Your task to perform on an android device: change keyboard looks Image 0: 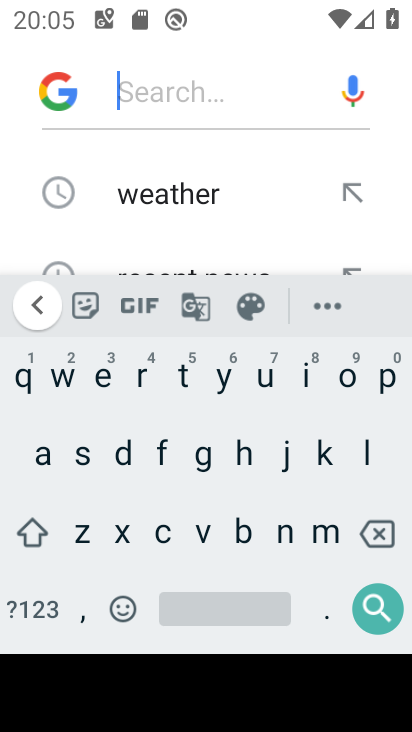
Step 0: press back button
Your task to perform on an android device: change keyboard looks Image 1: 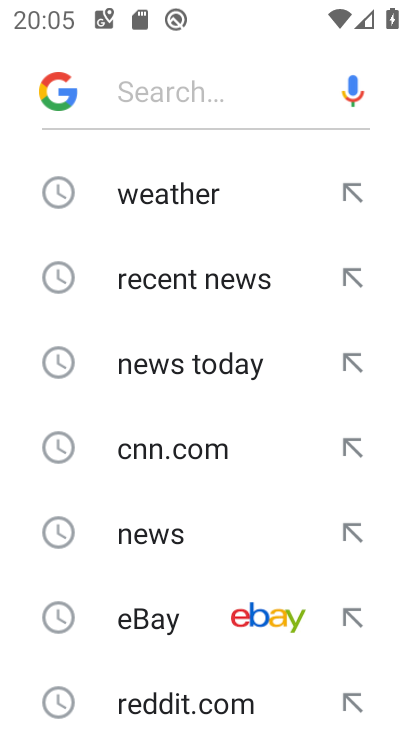
Step 1: press back button
Your task to perform on an android device: change keyboard looks Image 2: 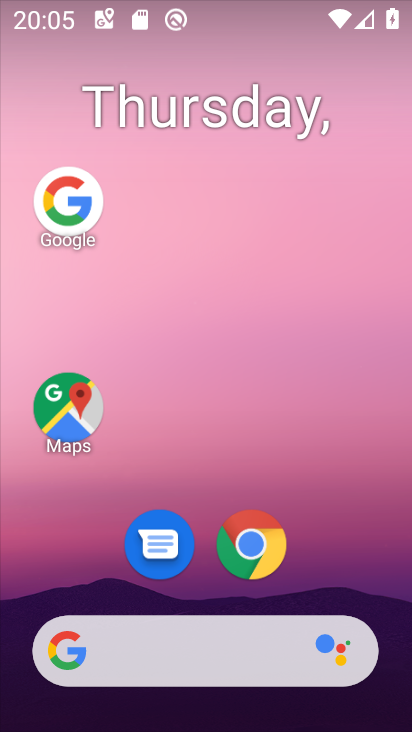
Step 2: drag from (273, 692) to (215, 138)
Your task to perform on an android device: change keyboard looks Image 3: 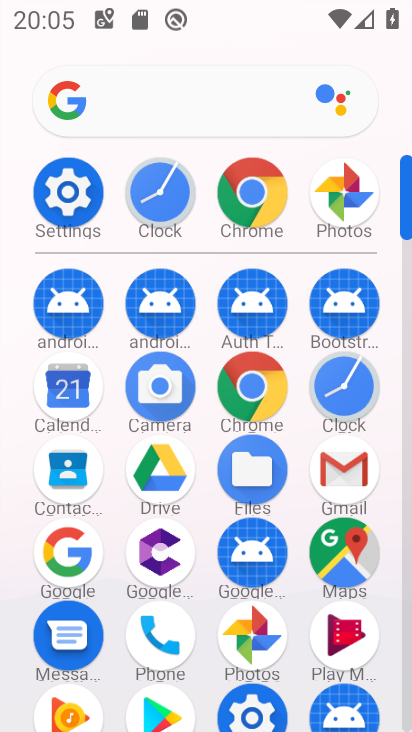
Step 3: drag from (35, 209) to (67, 186)
Your task to perform on an android device: change keyboard looks Image 4: 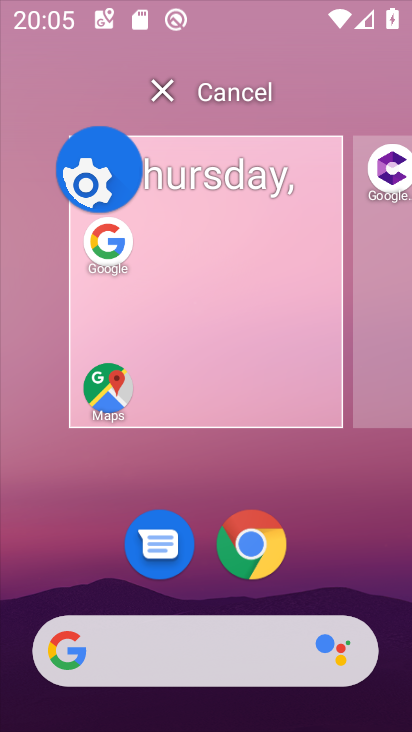
Step 4: click (67, 186)
Your task to perform on an android device: change keyboard looks Image 5: 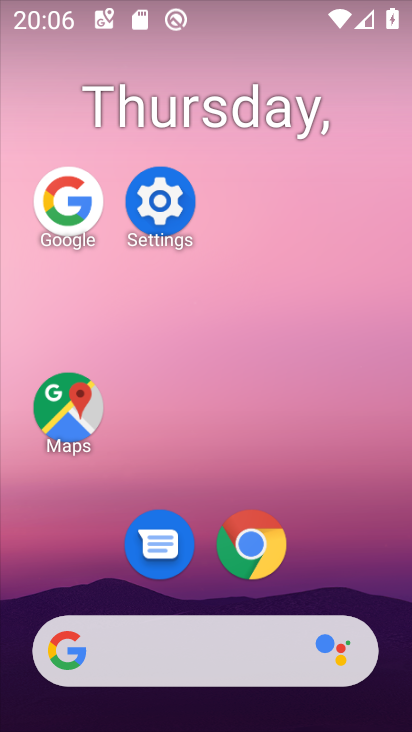
Step 5: drag from (259, 710) to (320, 210)
Your task to perform on an android device: change keyboard looks Image 6: 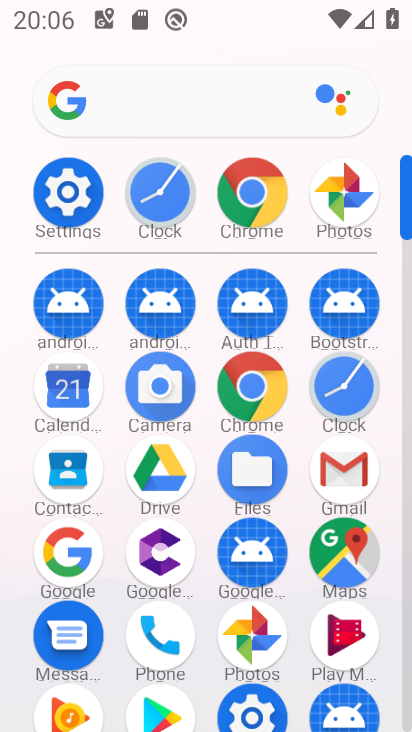
Step 6: click (77, 211)
Your task to perform on an android device: change keyboard looks Image 7: 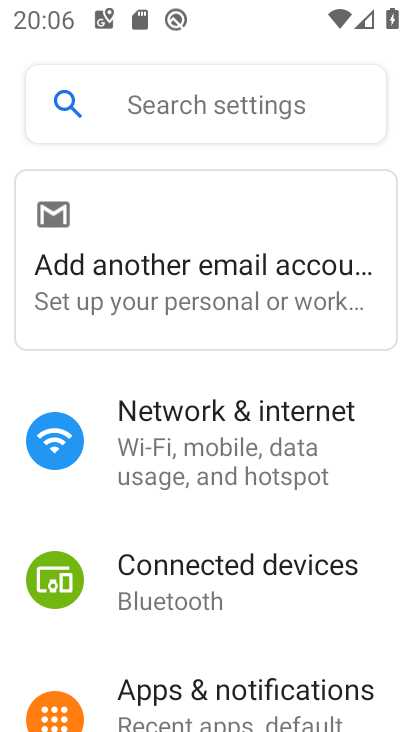
Step 7: click (200, 99)
Your task to perform on an android device: change keyboard looks Image 8: 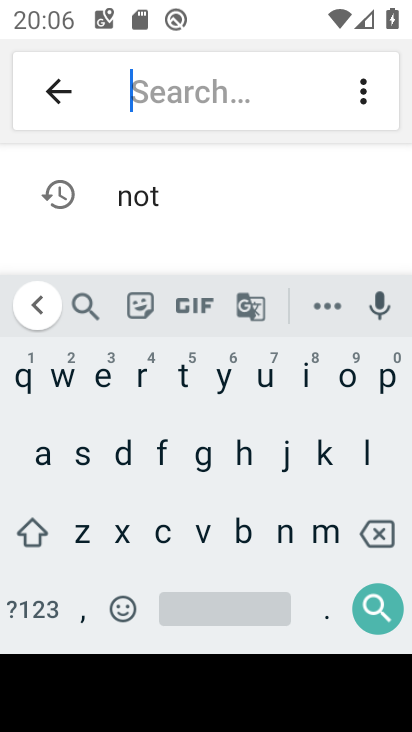
Step 8: click (327, 452)
Your task to perform on an android device: change keyboard looks Image 9: 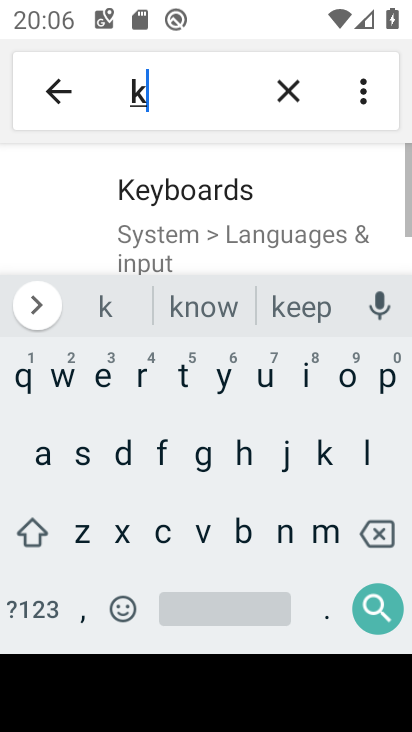
Step 9: click (104, 390)
Your task to perform on an android device: change keyboard looks Image 10: 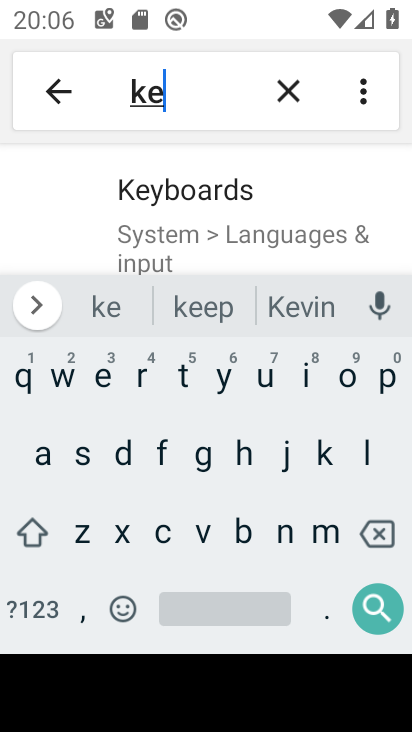
Step 10: click (205, 219)
Your task to perform on an android device: change keyboard looks Image 11: 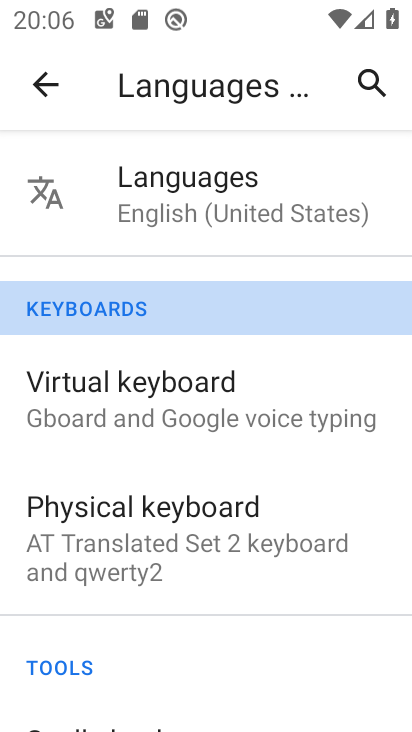
Step 11: click (156, 386)
Your task to perform on an android device: change keyboard looks Image 12: 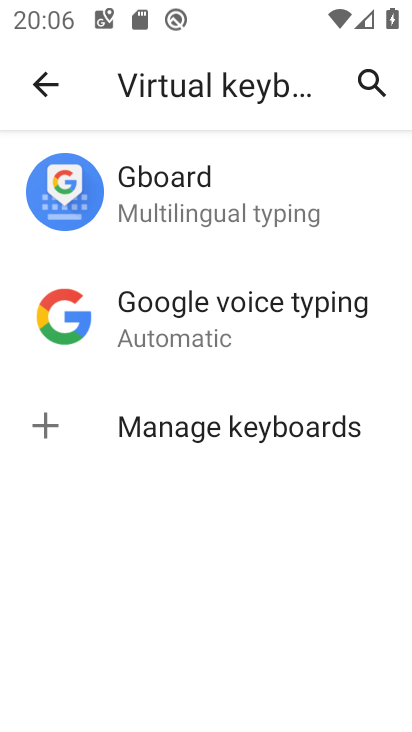
Step 12: click (190, 185)
Your task to perform on an android device: change keyboard looks Image 13: 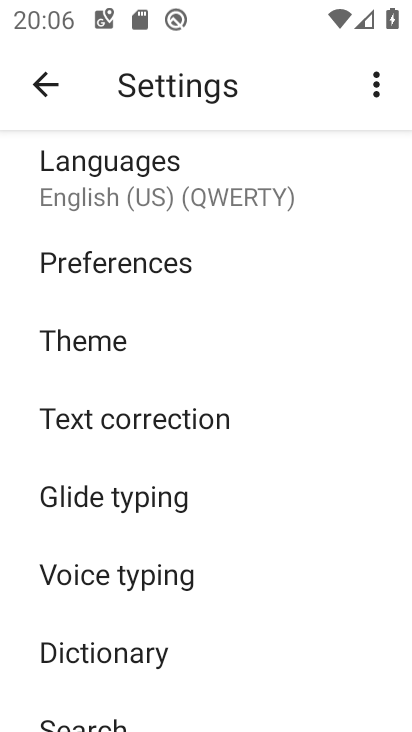
Step 13: click (99, 335)
Your task to perform on an android device: change keyboard looks Image 14: 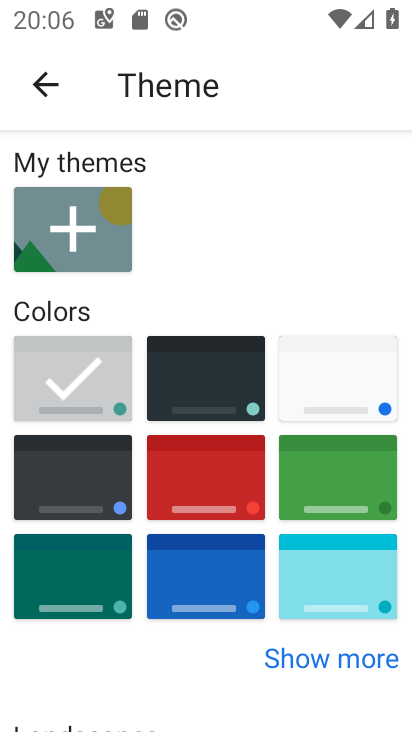
Step 14: click (111, 563)
Your task to perform on an android device: change keyboard looks Image 15: 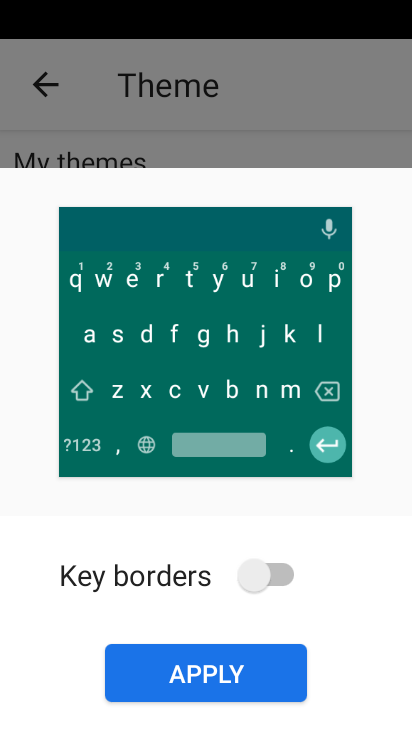
Step 15: click (255, 573)
Your task to perform on an android device: change keyboard looks Image 16: 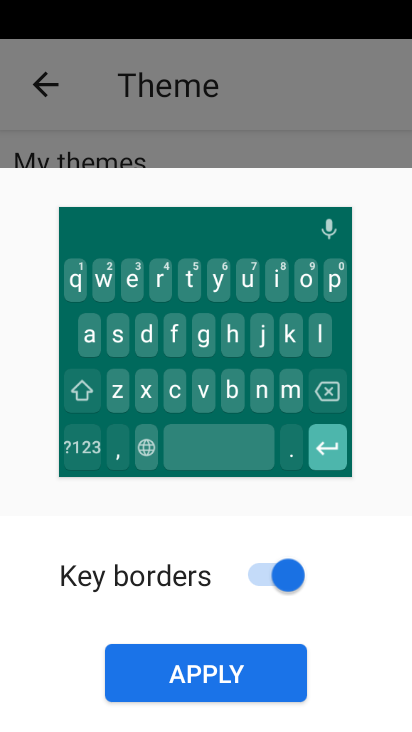
Step 16: click (242, 671)
Your task to perform on an android device: change keyboard looks Image 17: 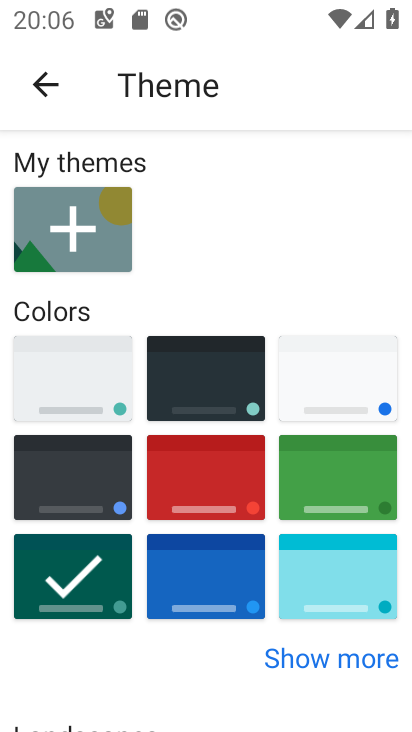
Step 17: task complete